Your task to perform on an android device: turn off translation in the chrome app Image 0: 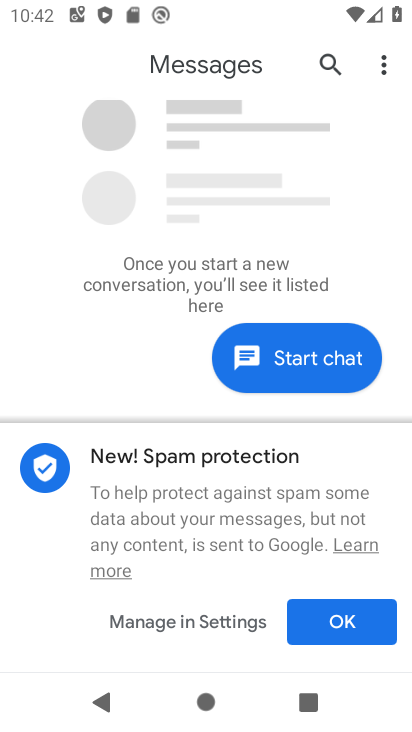
Step 0: drag from (179, 605) to (254, 239)
Your task to perform on an android device: turn off translation in the chrome app Image 1: 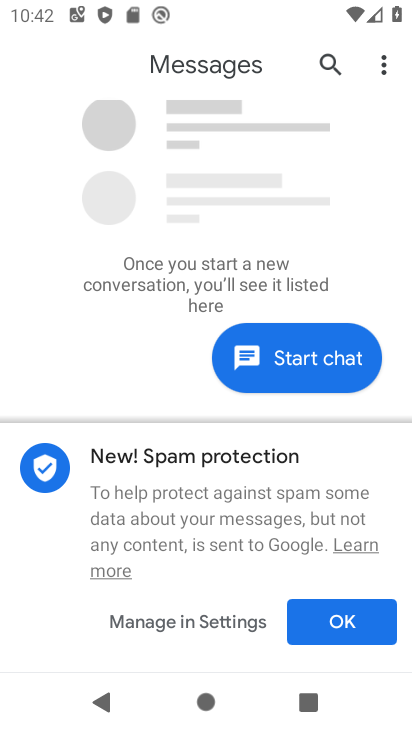
Step 1: press back button
Your task to perform on an android device: turn off translation in the chrome app Image 2: 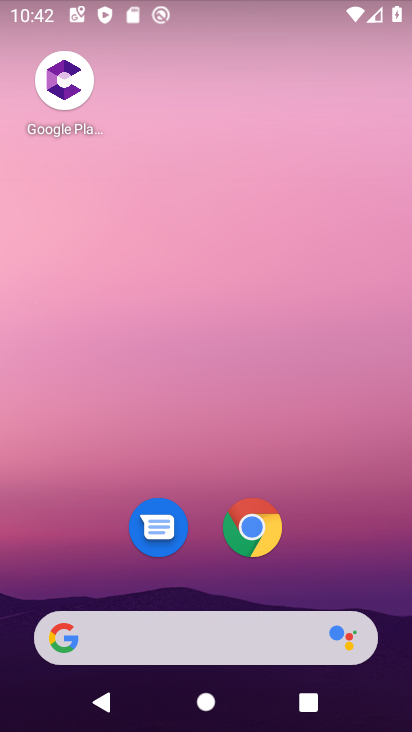
Step 2: drag from (204, 563) to (306, 31)
Your task to perform on an android device: turn off translation in the chrome app Image 3: 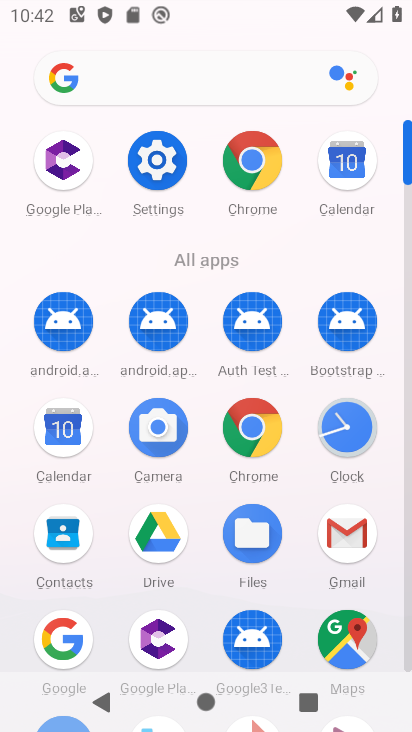
Step 3: click (256, 436)
Your task to perform on an android device: turn off translation in the chrome app Image 4: 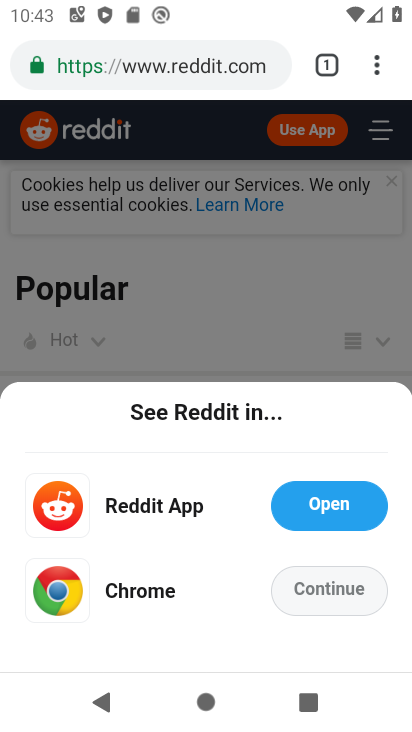
Step 4: drag from (380, 64) to (126, 560)
Your task to perform on an android device: turn off translation in the chrome app Image 5: 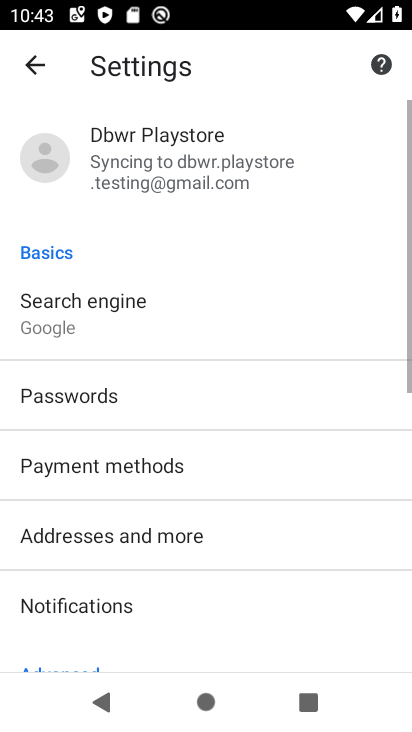
Step 5: drag from (139, 561) to (264, 159)
Your task to perform on an android device: turn off translation in the chrome app Image 6: 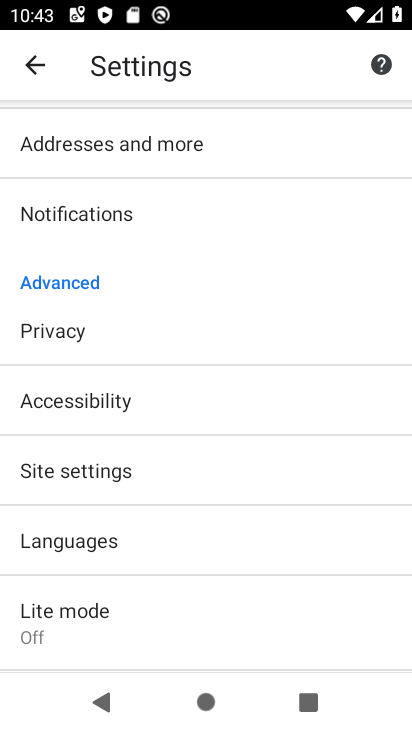
Step 6: click (75, 551)
Your task to perform on an android device: turn off translation in the chrome app Image 7: 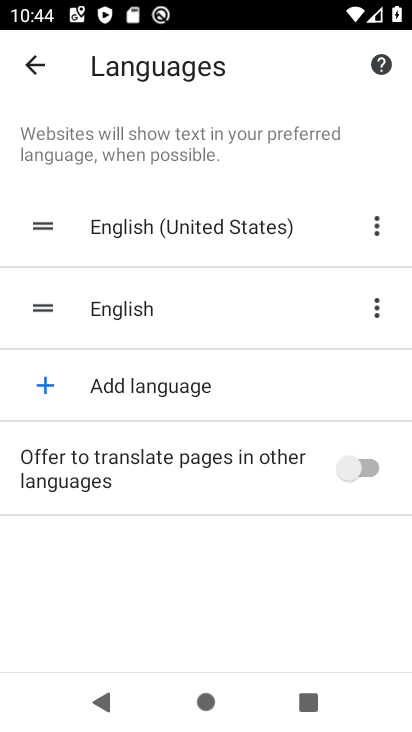
Step 7: task complete